Your task to perform on an android device: turn pop-ups off in chrome Image 0: 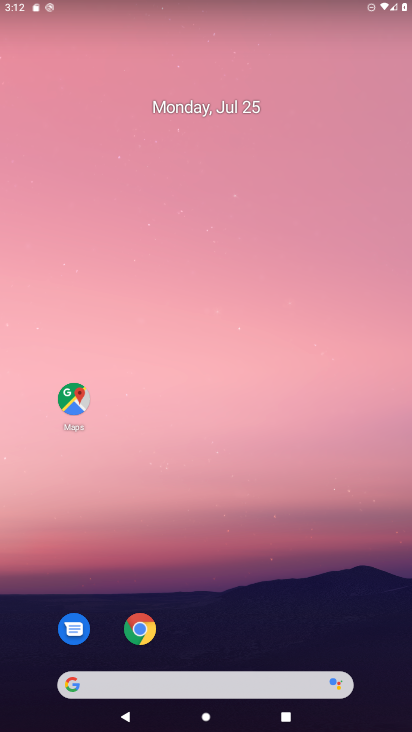
Step 0: click (145, 618)
Your task to perform on an android device: turn pop-ups off in chrome Image 1: 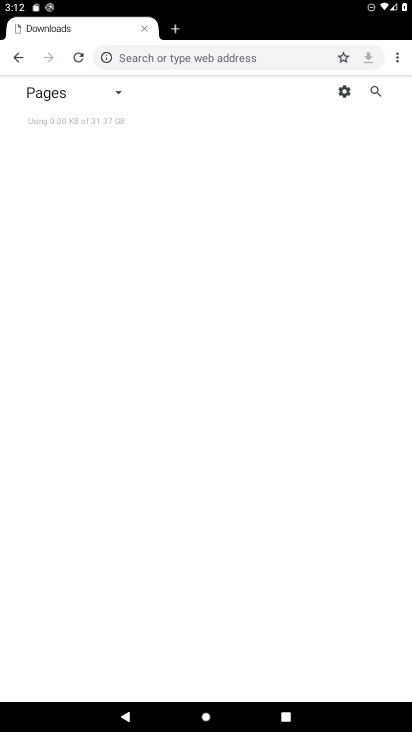
Step 1: click (390, 60)
Your task to perform on an android device: turn pop-ups off in chrome Image 2: 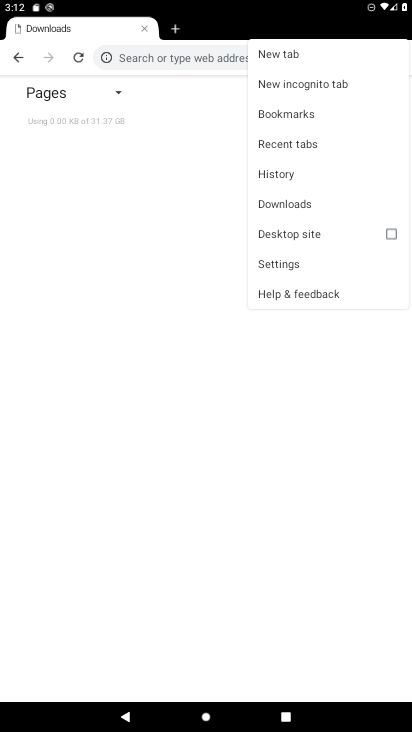
Step 2: click (290, 261)
Your task to perform on an android device: turn pop-ups off in chrome Image 3: 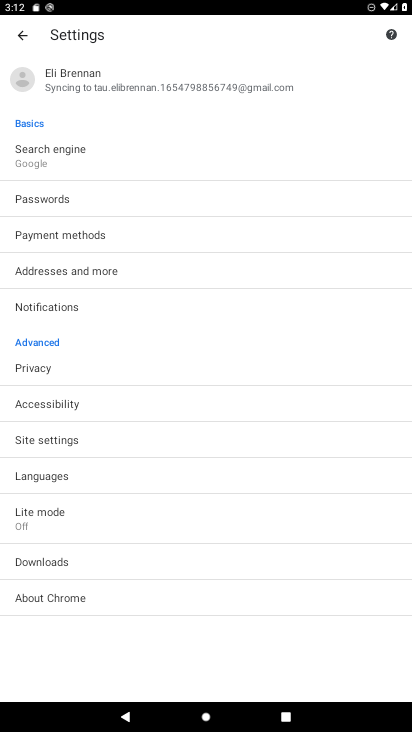
Step 3: click (57, 435)
Your task to perform on an android device: turn pop-ups off in chrome Image 4: 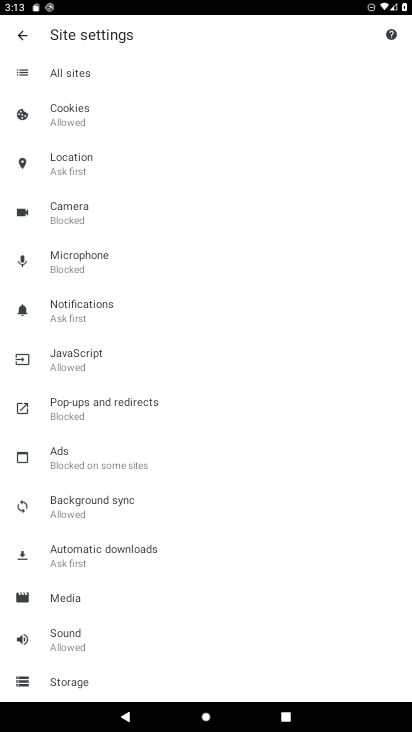
Step 4: click (86, 412)
Your task to perform on an android device: turn pop-ups off in chrome Image 5: 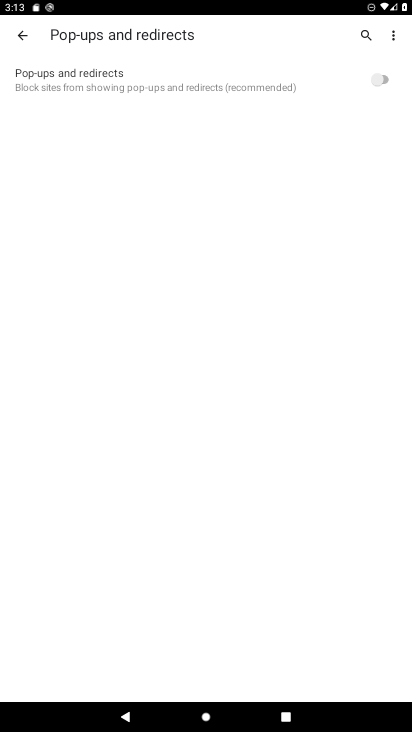
Step 5: task complete